Your task to perform on an android device: Open Youtube and go to "Your channel" Image 0: 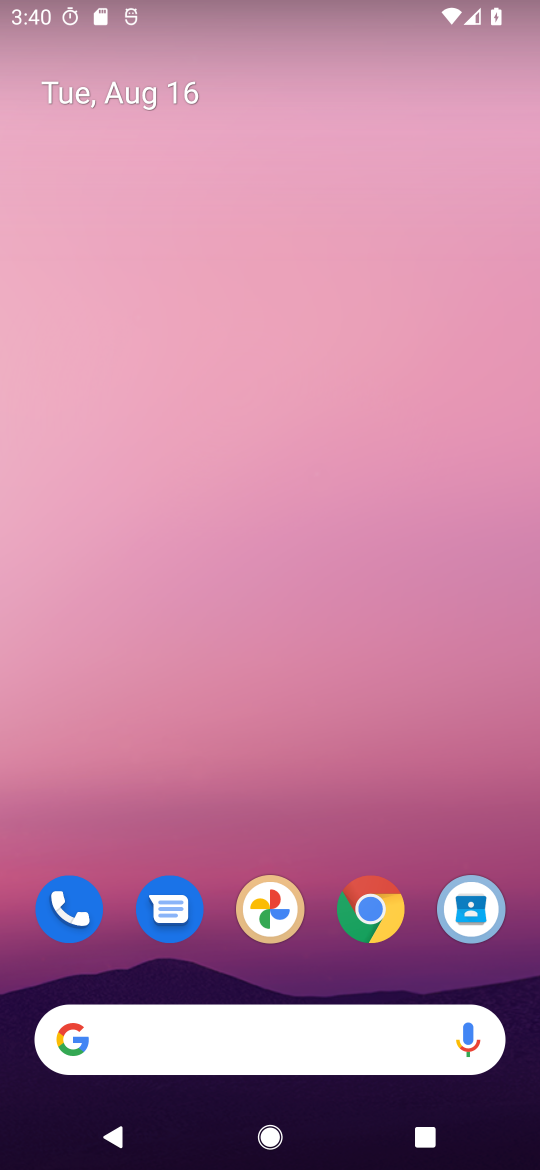
Step 0: drag from (302, 892) to (372, 171)
Your task to perform on an android device: Open Youtube and go to "Your channel" Image 1: 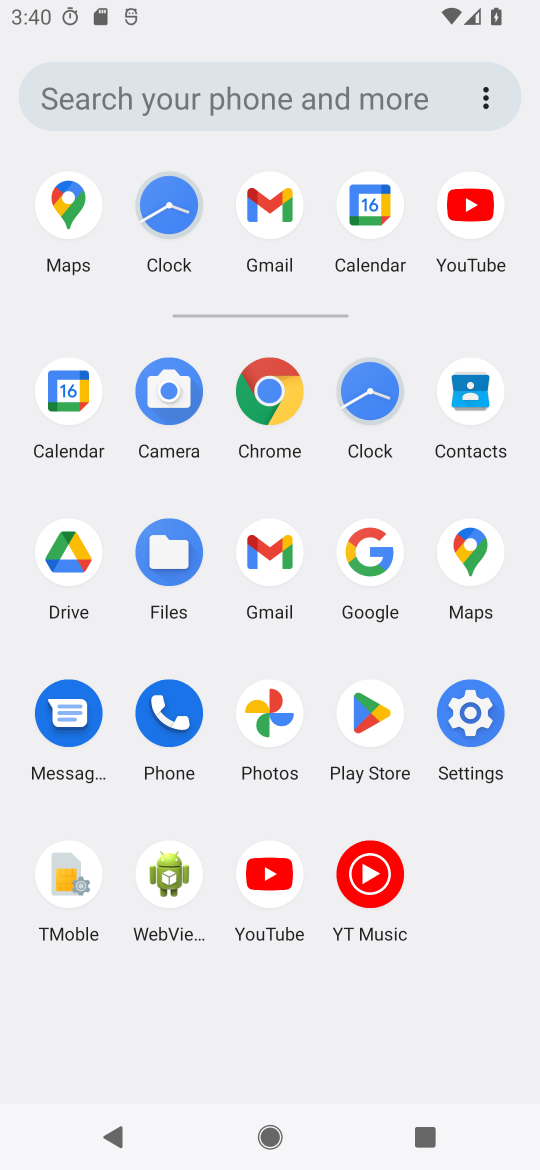
Step 1: click (261, 903)
Your task to perform on an android device: Open Youtube and go to "Your channel" Image 2: 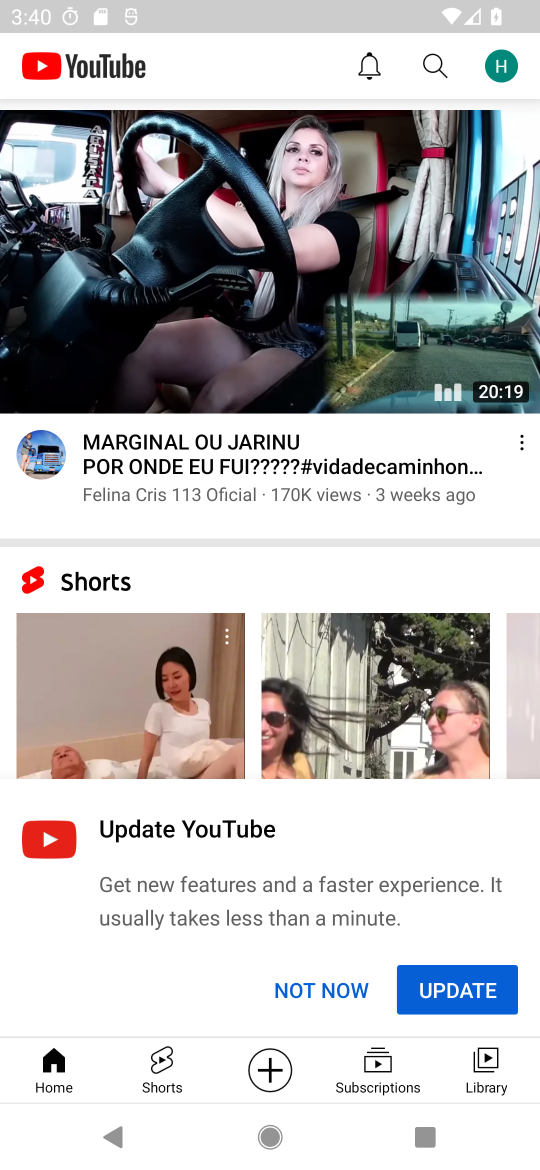
Step 2: click (431, 64)
Your task to perform on an android device: Open Youtube and go to "Your channel" Image 3: 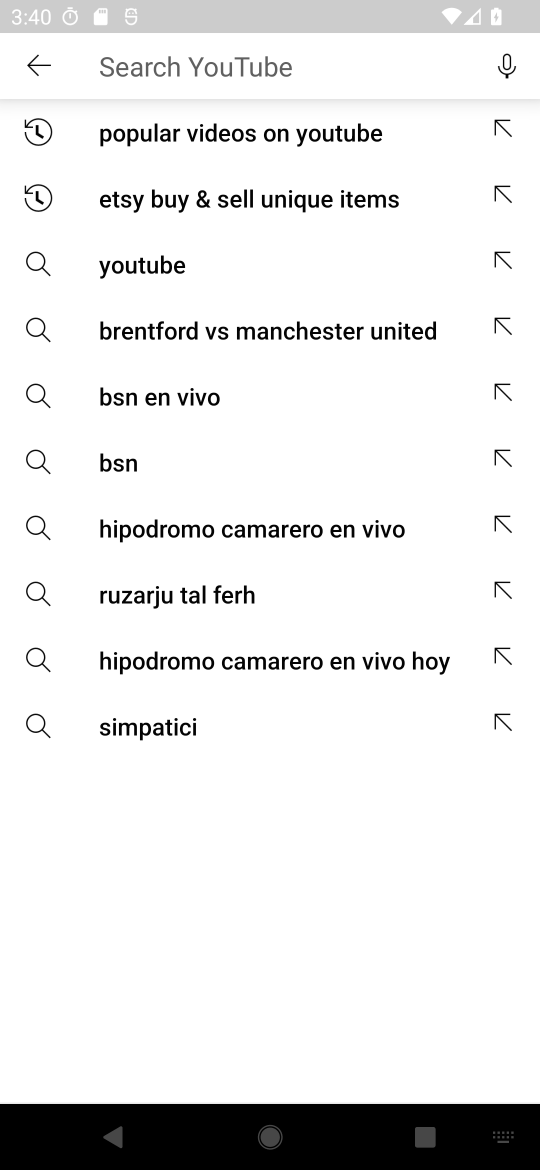
Step 3: press back button
Your task to perform on an android device: Open Youtube and go to "Your channel" Image 4: 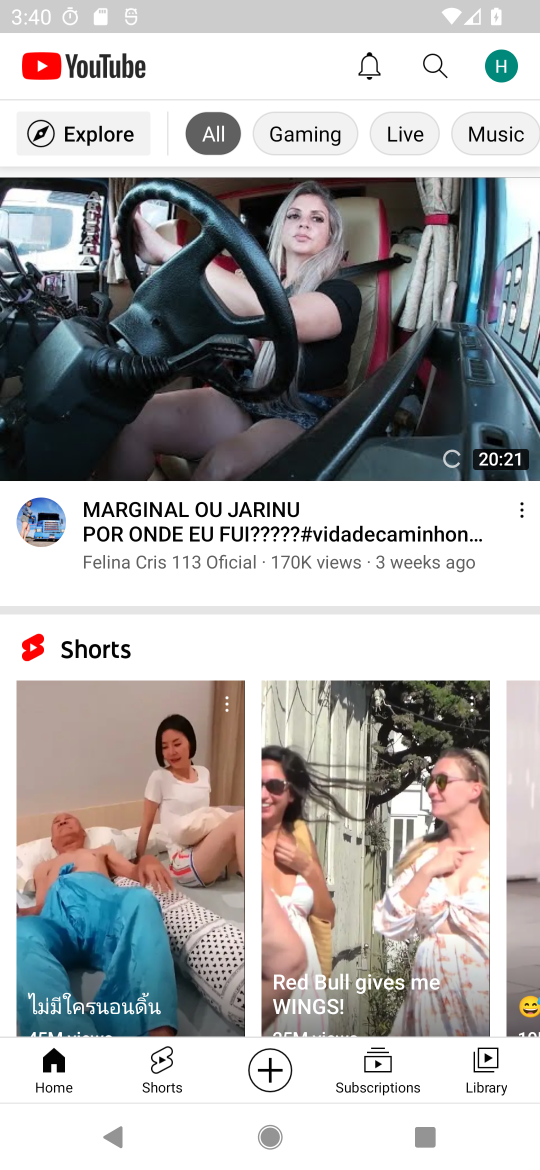
Step 4: click (511, 77)
Your task to perform on an android device: Open Youtube and go to "Your channel" Image 5: 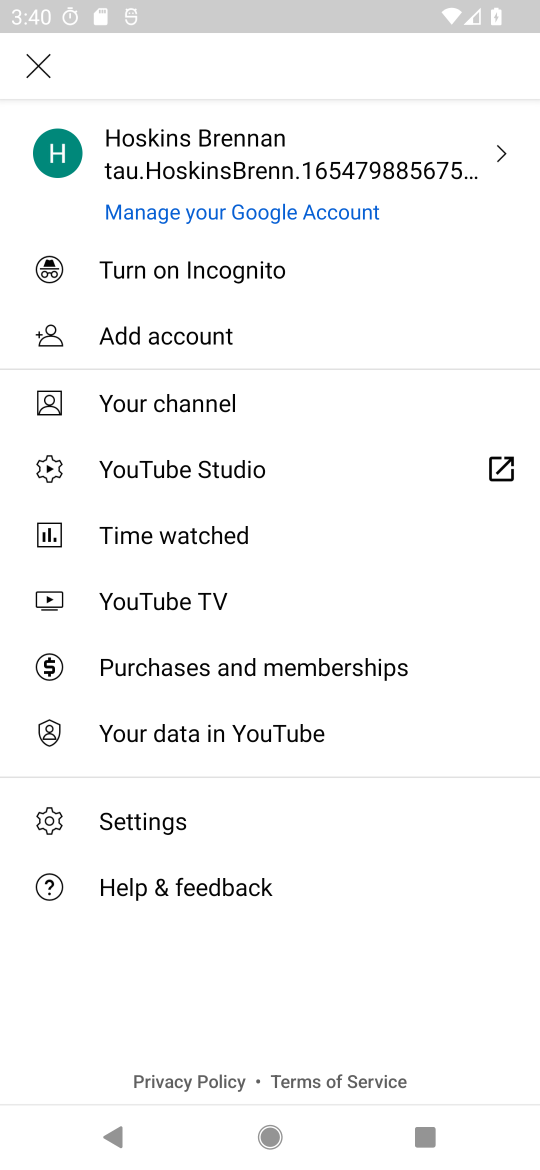
Step 5: click (196, 402)
Your task to perform on an android device: Open Youtube and go to "Your channel" Image 6: 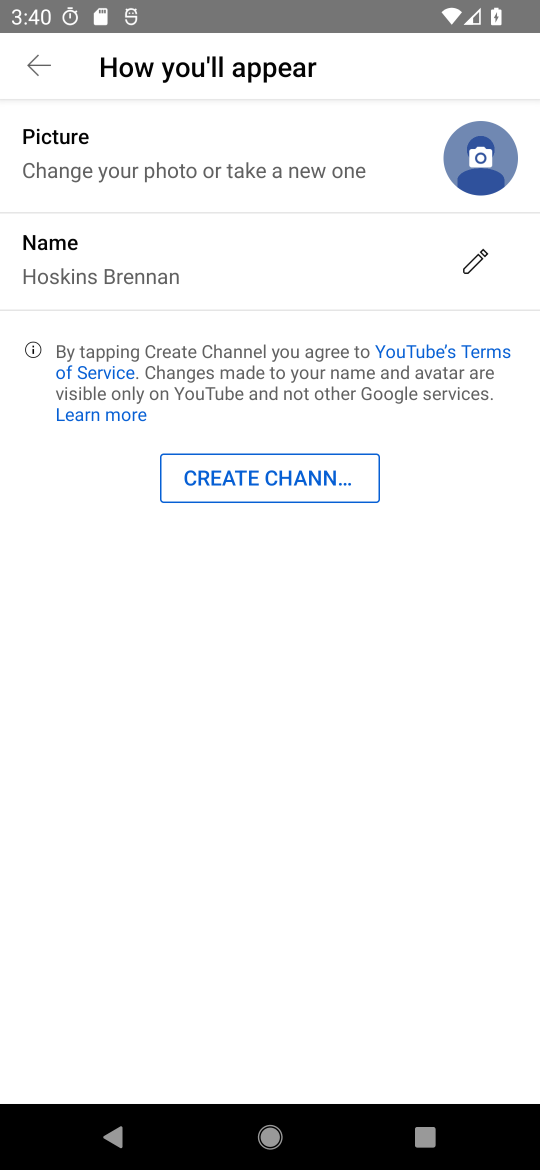
Step 6: task complete